Your task to perform on an android device: open app "DoorDash - Food Delivery" (install if not already installed) and go to login screen Image 0: 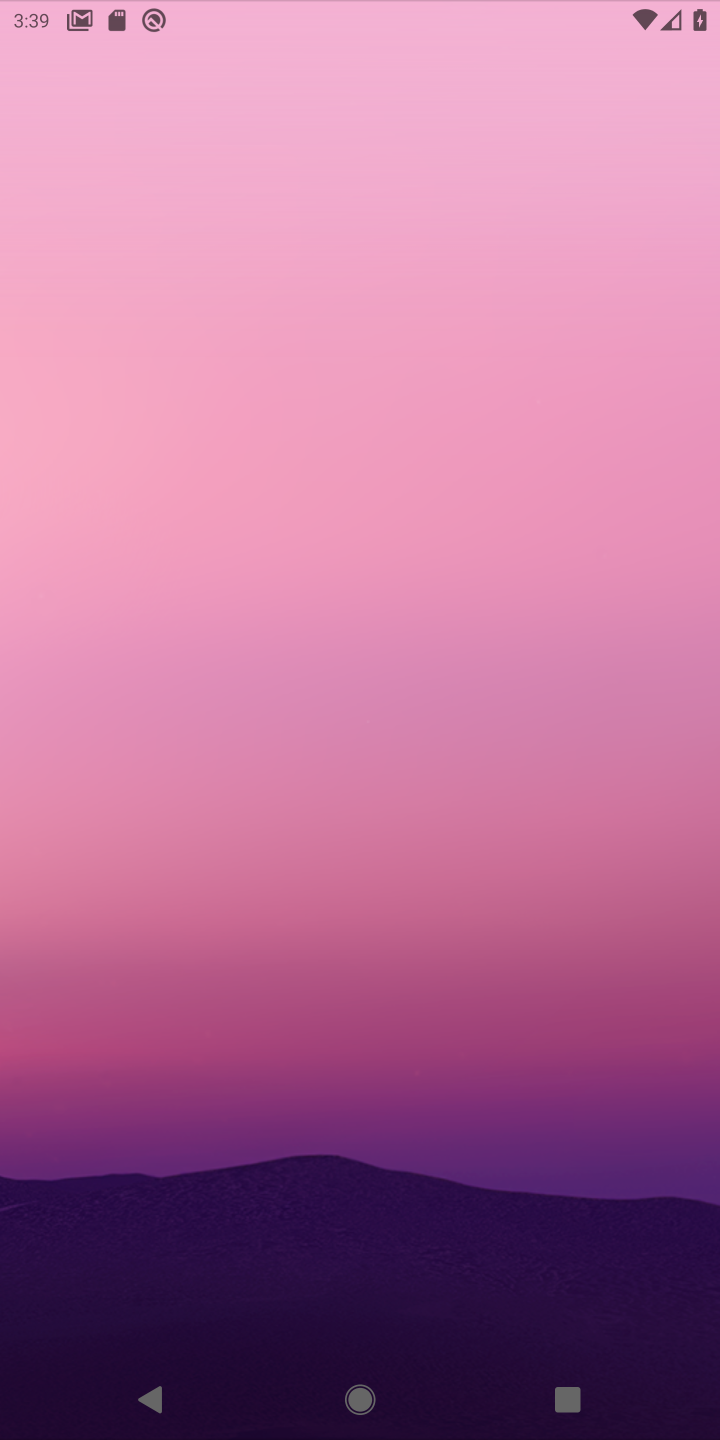
Step 0: press home button
Your task to perform on an android device: open app "DoorDash - Food Delivery" (install if not already installed) and go to login screen Image 1: 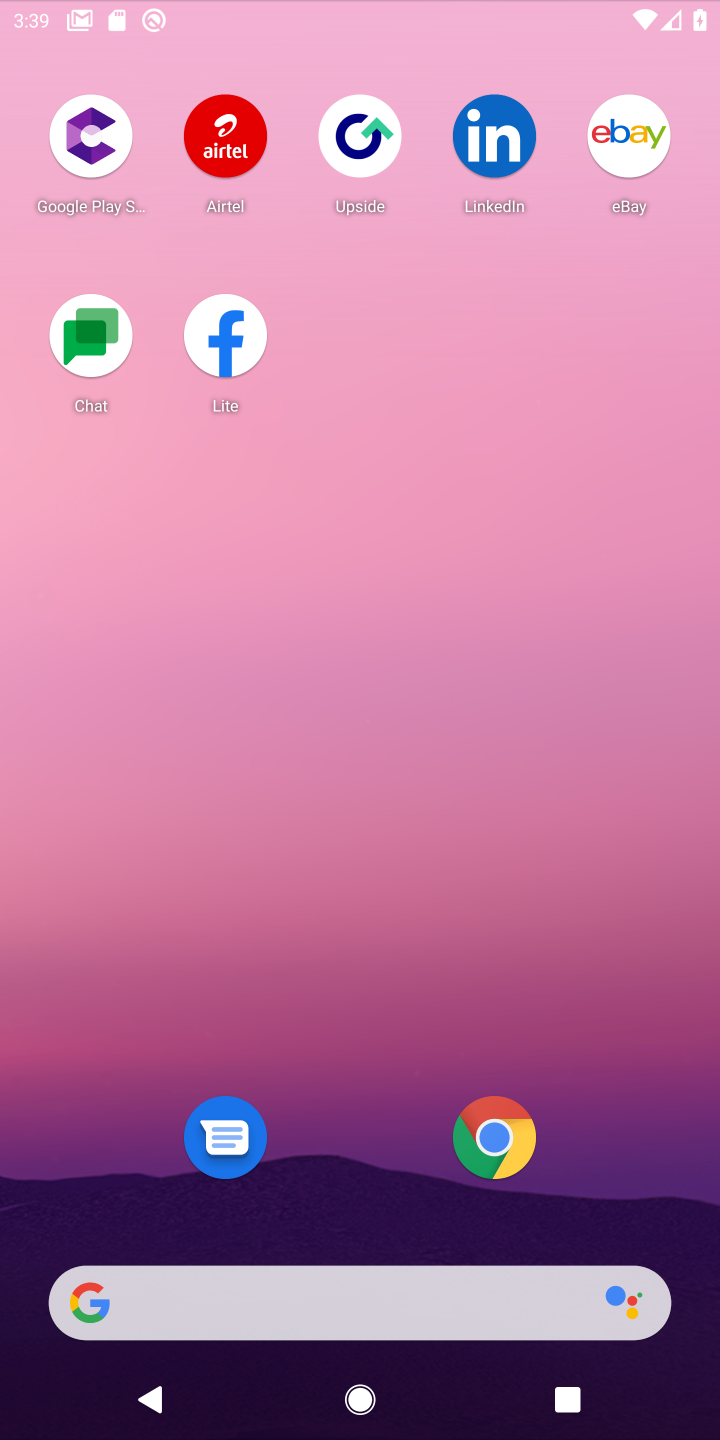
Step 1: drag from (389, 1055) to (425, 373)
Your task to perform on an android device: open app "DoorDash - Food Delivery" (install if not already installed) and go to login screen Image 2: 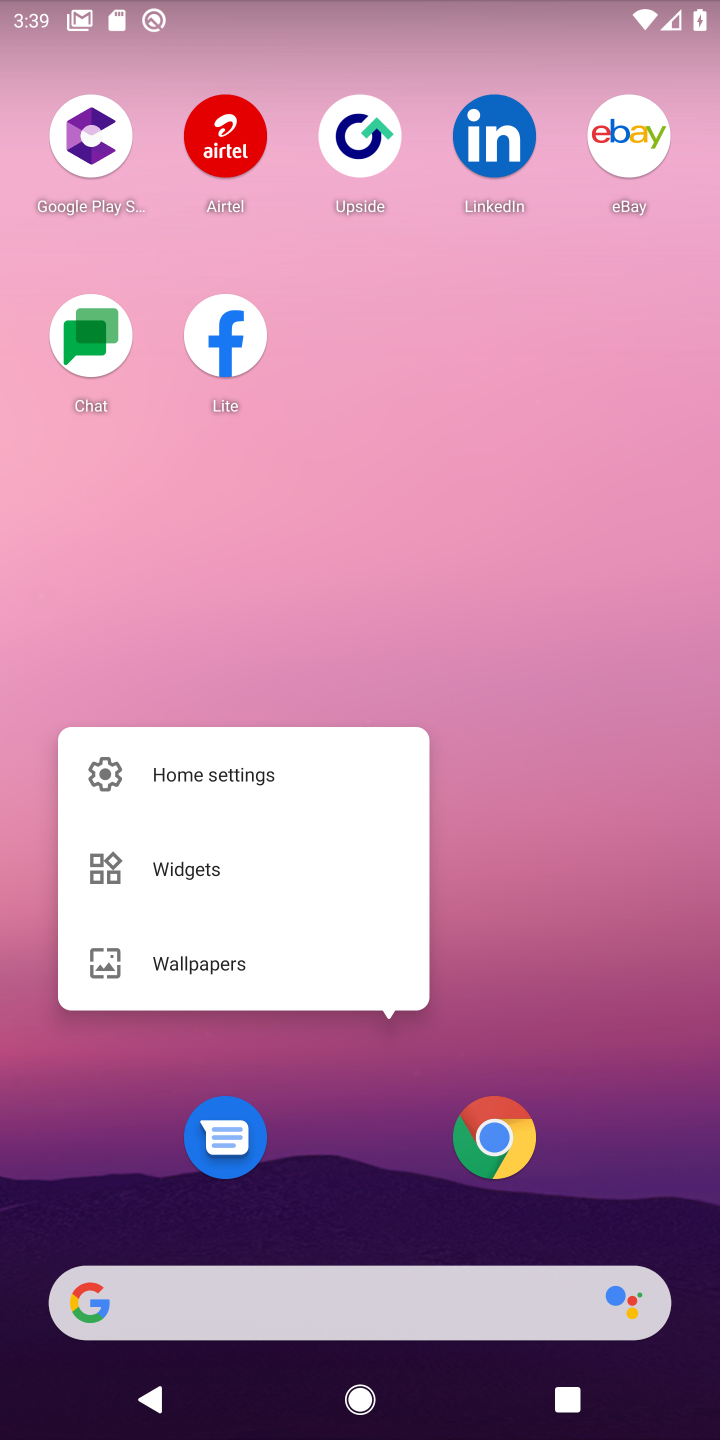
Step 2: drag from (385, 1153) to (385, 26)
Your task to perform on an android device: open app "DoorDash - Food Delivery" (install if not already installed) and go to login screen Image 3: 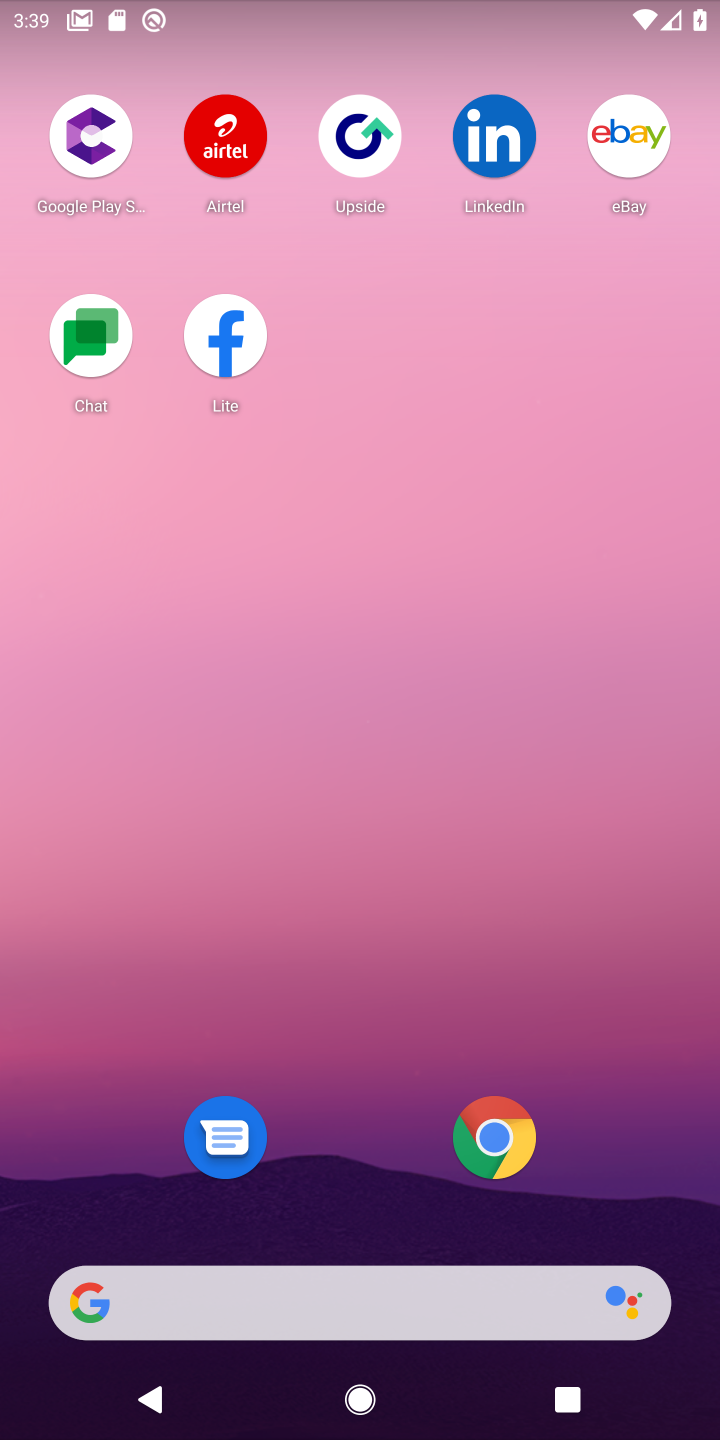
Step 3: click (379, 117)
Your task to perform on an android device: open app "DoorDash - Food Delivery" (install if not already installed) and go to login screen Image 4: 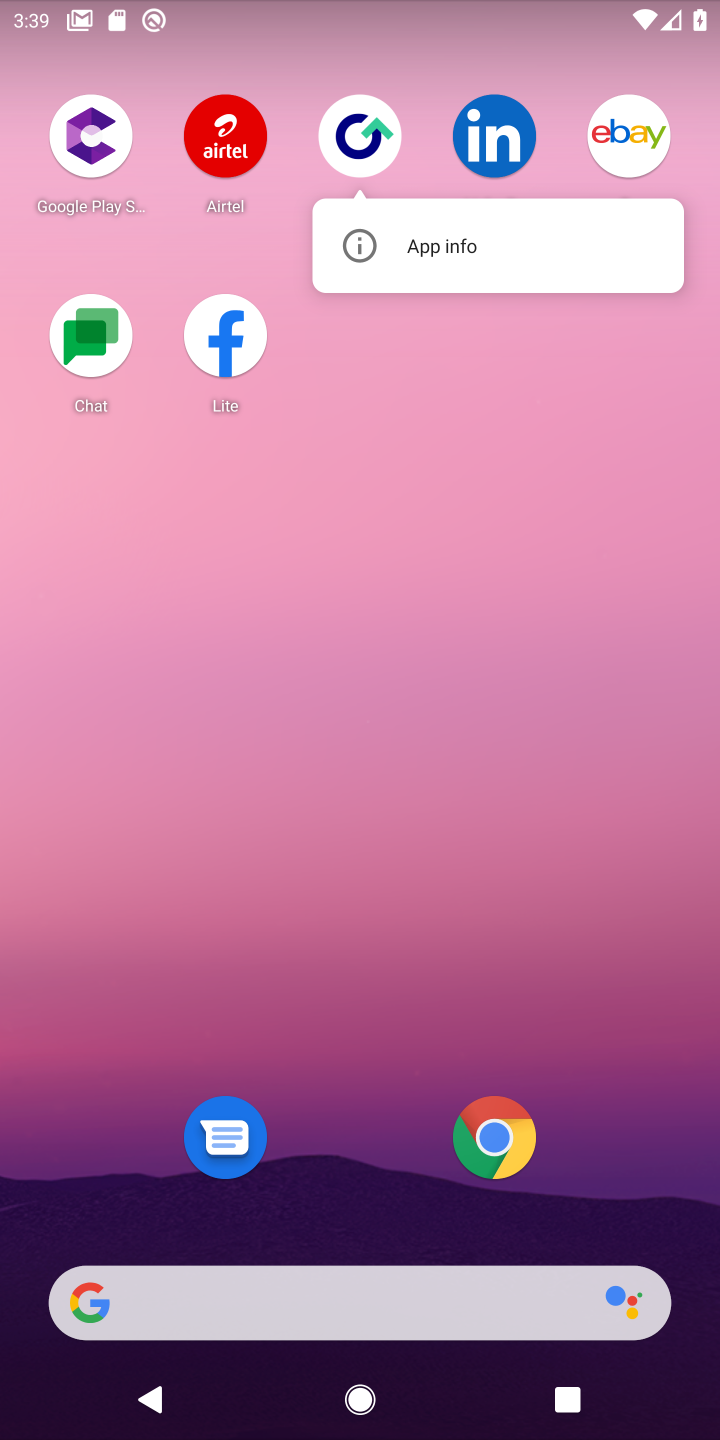
Step 4: click (366, 229)
Your task to perform on an android device: open app "DoorDash - Food Delivery" (install if not already installed) and go to login screen Image 5: 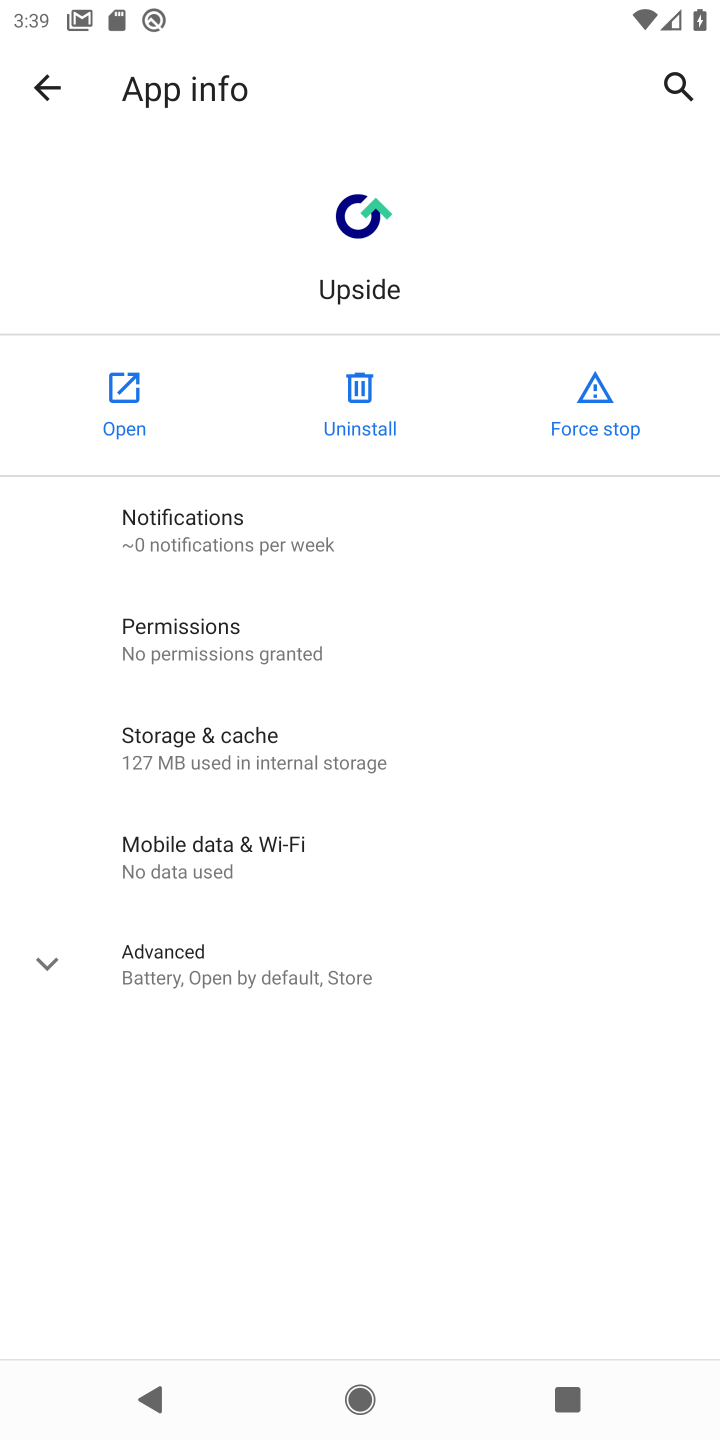
Step 5: press home button
Your task to perform on an android device: open app "DoorDash - Food Delivery" (install if not already installed) and go to login screen Image 6: 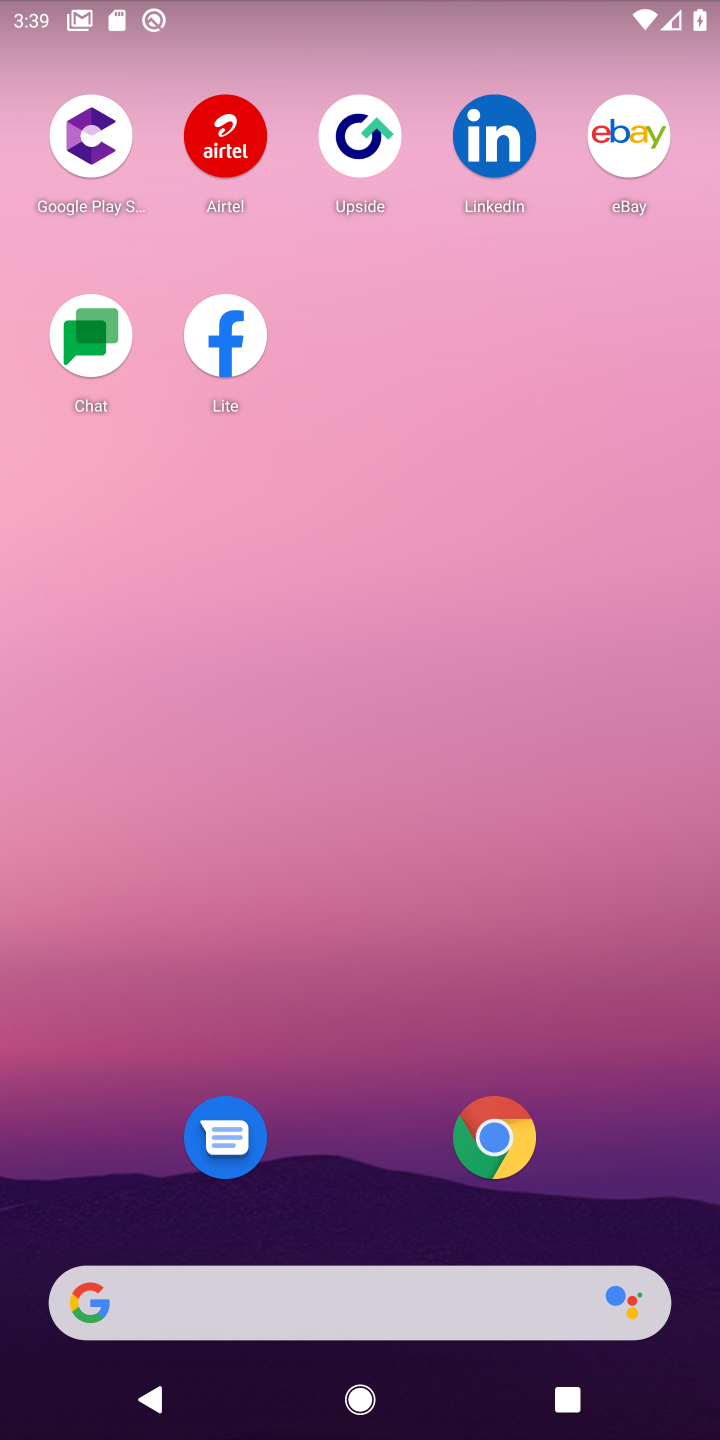
Step 6: drag from (380, 1128) to (380, 353)
Your task to perform on an android device: open app "DoorDash - Food Delivery" (install if not already installed) and go to login screen Image 7: 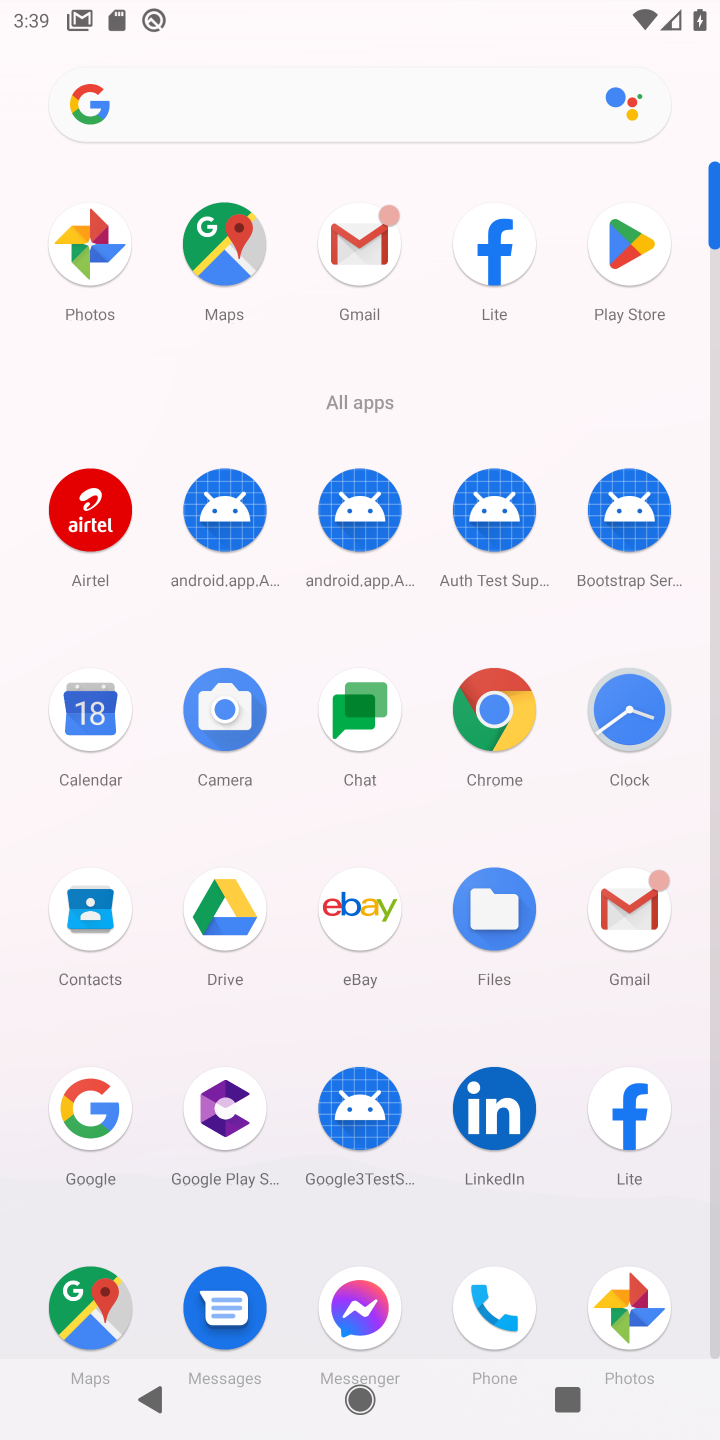
Step 7: click (644, 235)
Your task to perform on an android device: open app "DoorDash - Food Delivery" (install if not already installed) and go to login screen Image 8: 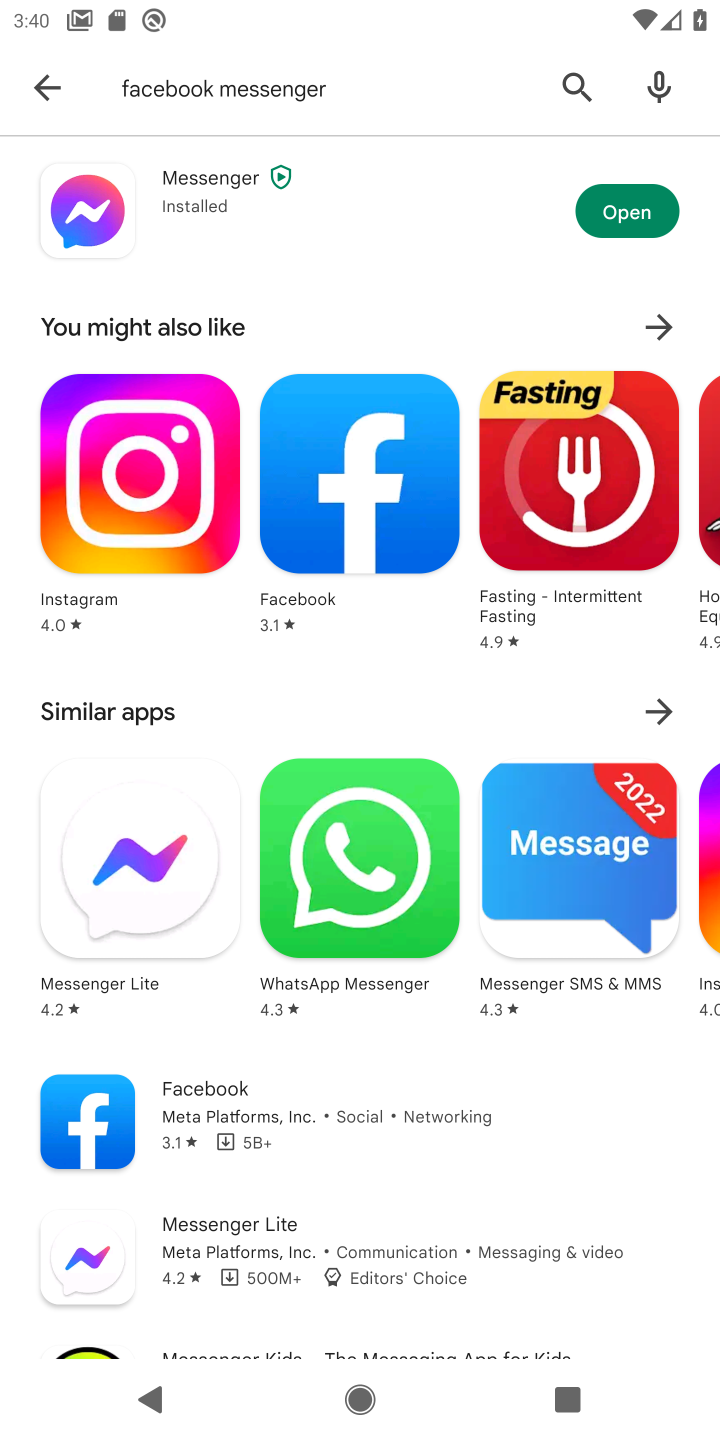
Step 8: click (42, 75)
Your task to perform on an android device: open app "DoorDash - Food Delivery" (install if not already installed) and go to login screen Image 9: 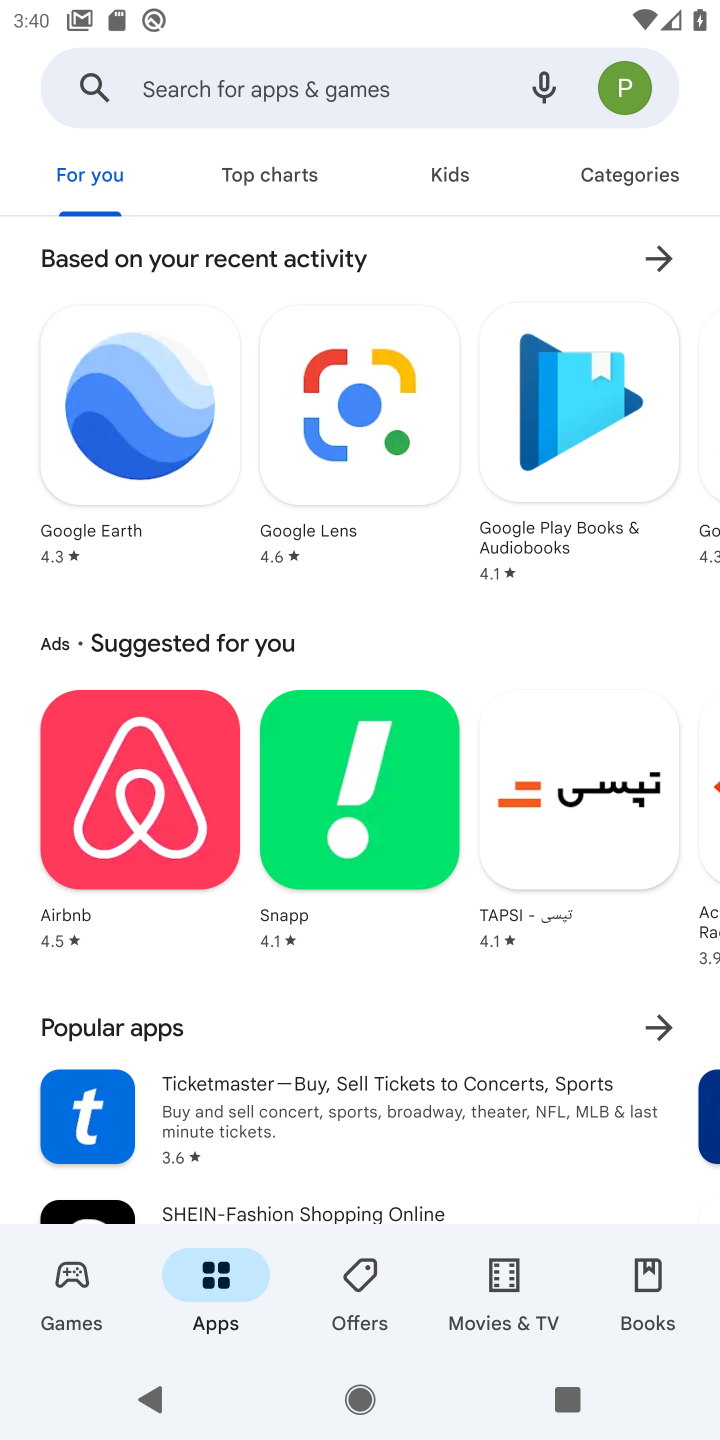
Step 9: click (185, 94)
Your task to perform on an android device: open app "DoorDash - Food Delivery" (install if not already installed) and go to login screen Image 10: 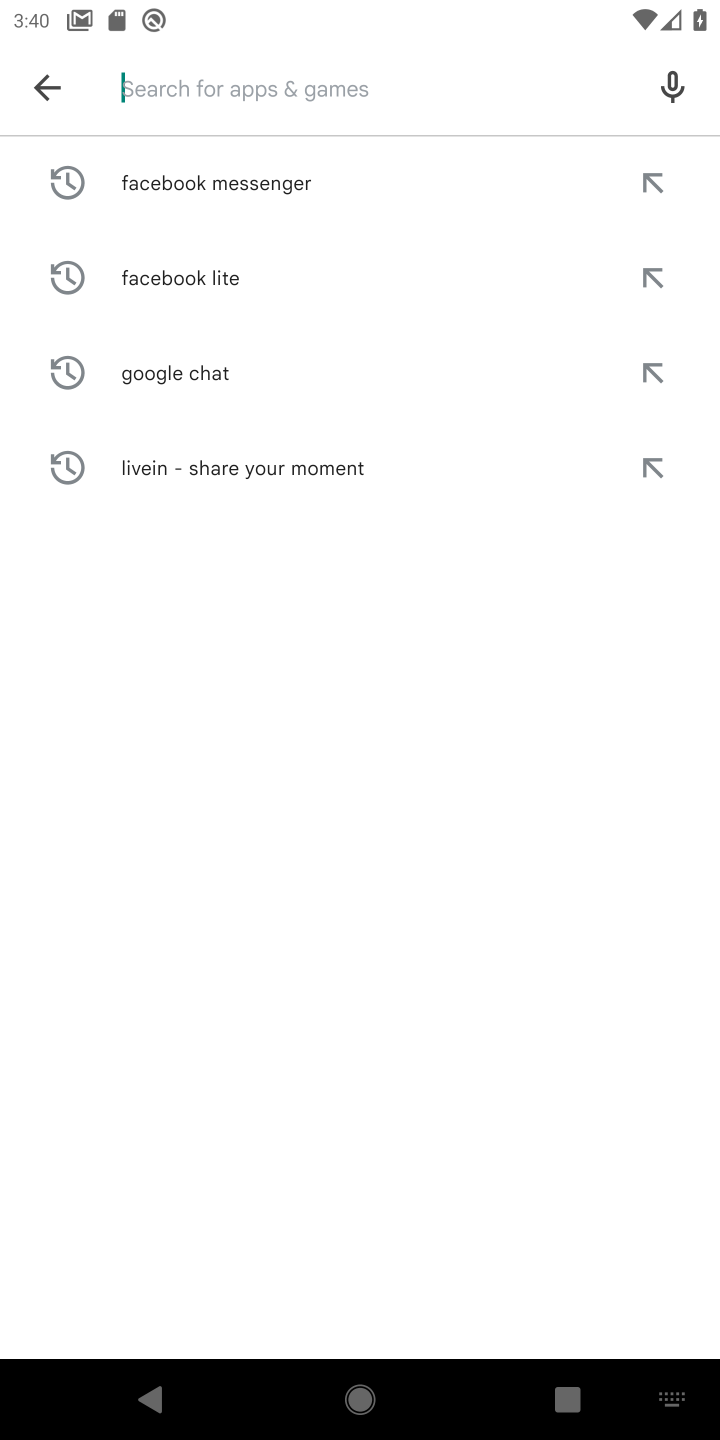
Step 10: type "DoorDash - Food Delivery"
Your task to perform on an android device: open app "DoorDash - Food Delivery" (install if not already installed) and go to login screen Image 11: 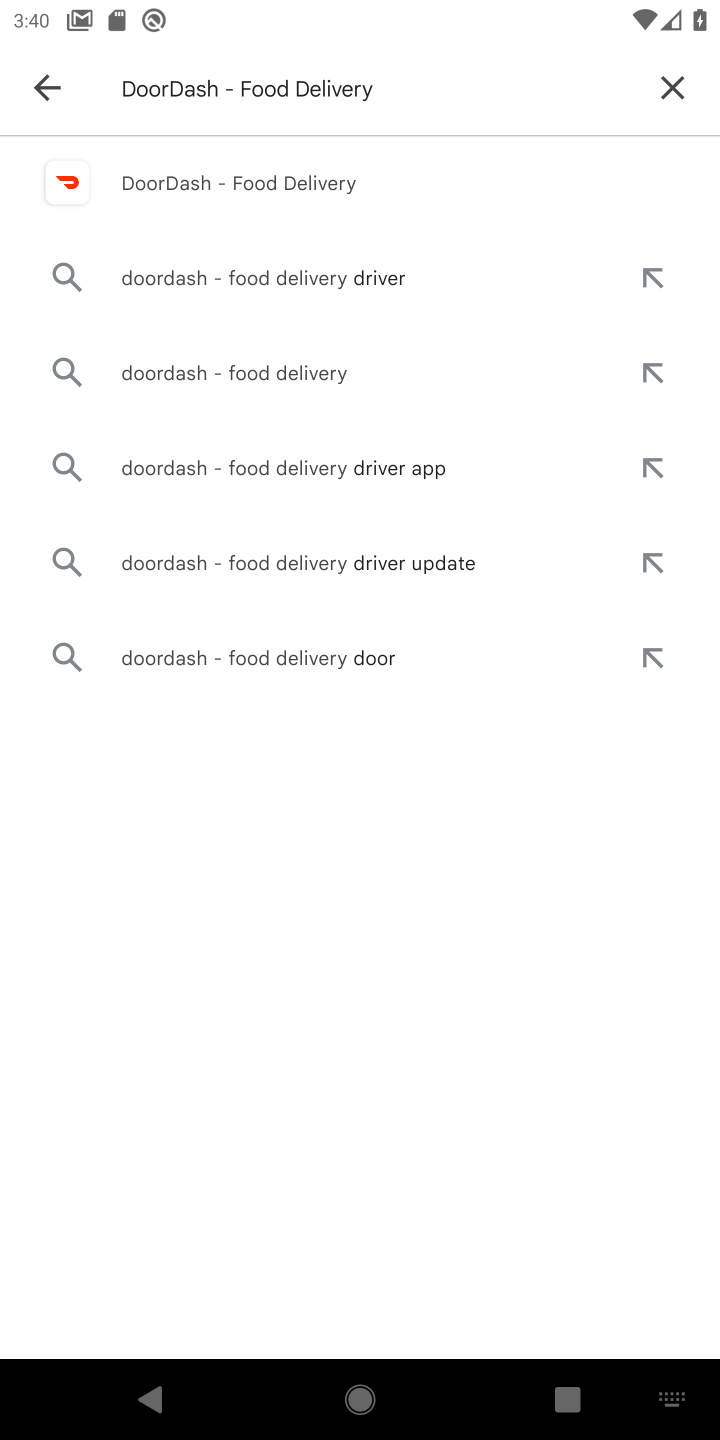
Step 11: click (247, 181)
Your task to perform on an android device: open app "DoorDash - Food Delivery" (install if not already installed) and go to login screen Image 12: 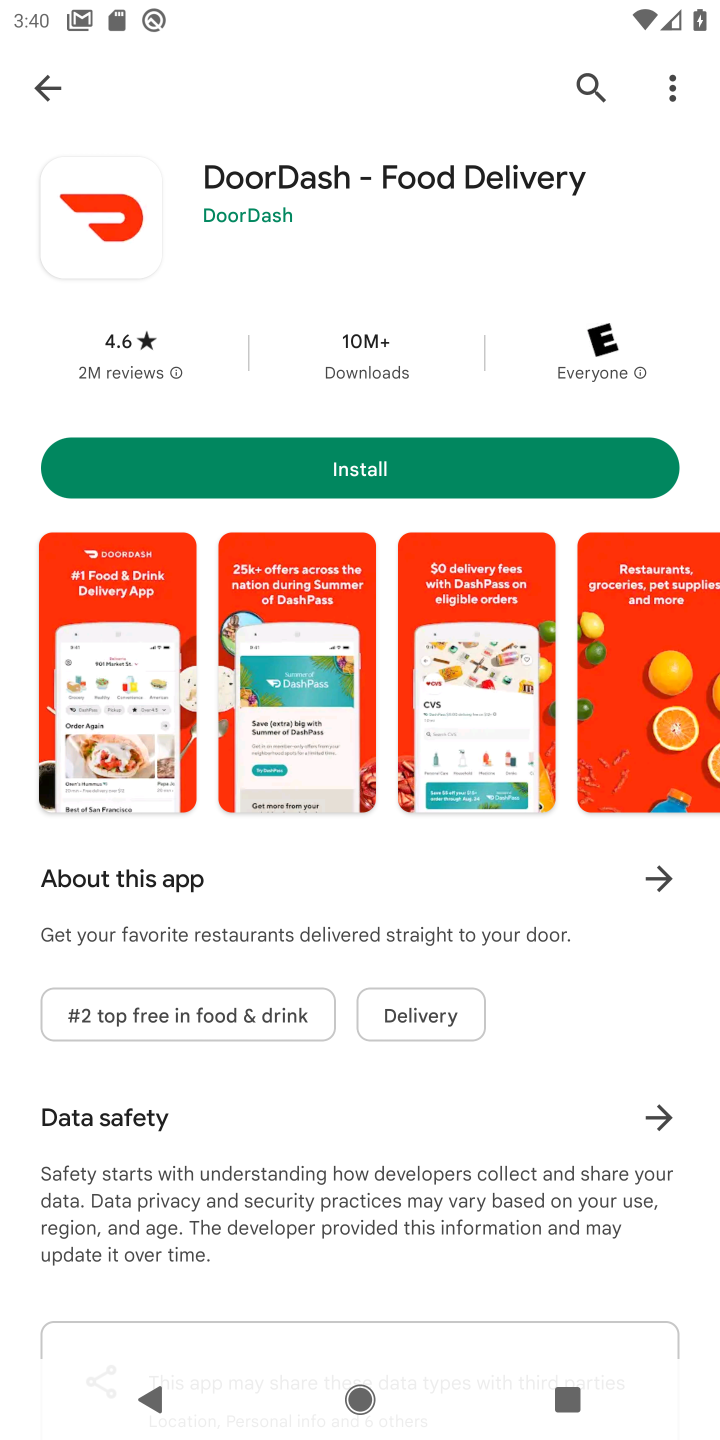
Step 12: click (346, 460)
Your task to perform on an android device: open app "DoorDash - Food Delivery" (install if not already installed) and go to login screen Image 13: 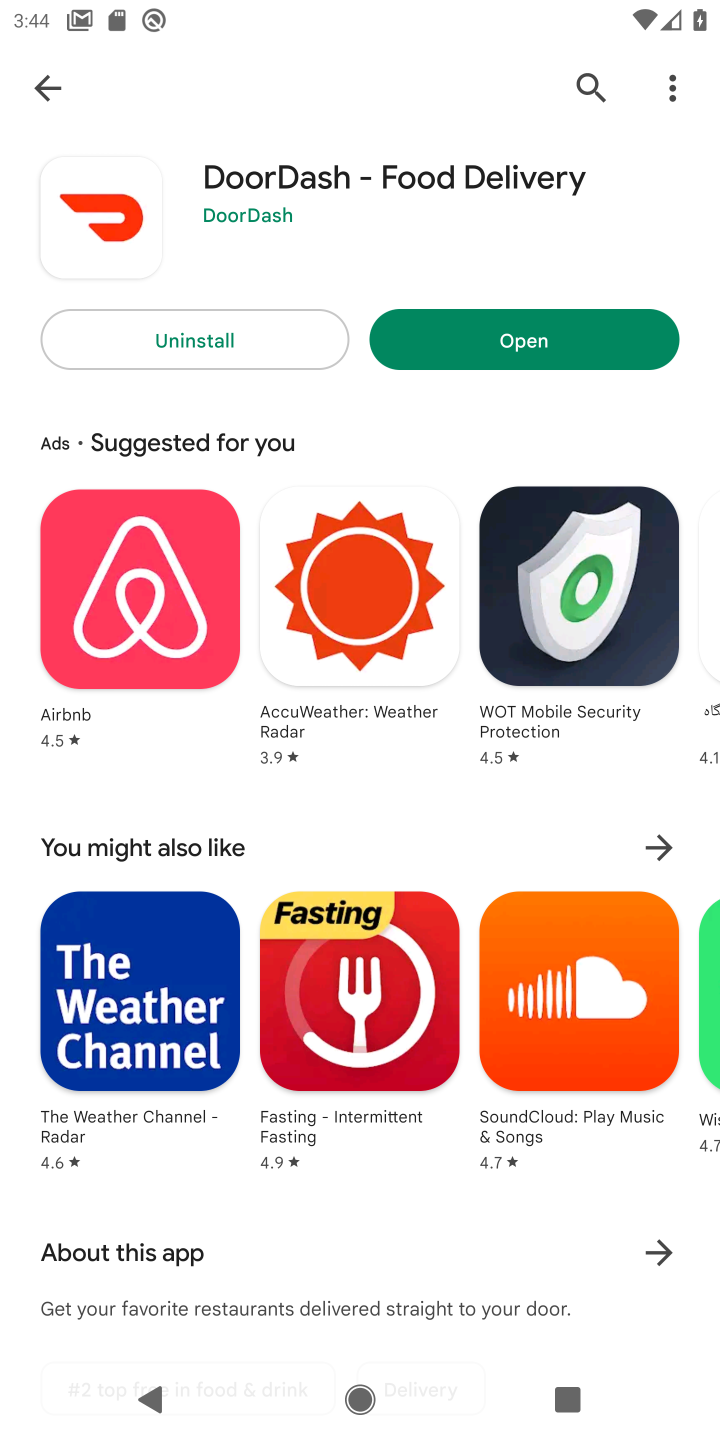
Step 13: click (525, 324)
Your task to perform on an android device: open app "DoorDash - Food Delivery" (install if not already installed) and go to login screen Image 14: 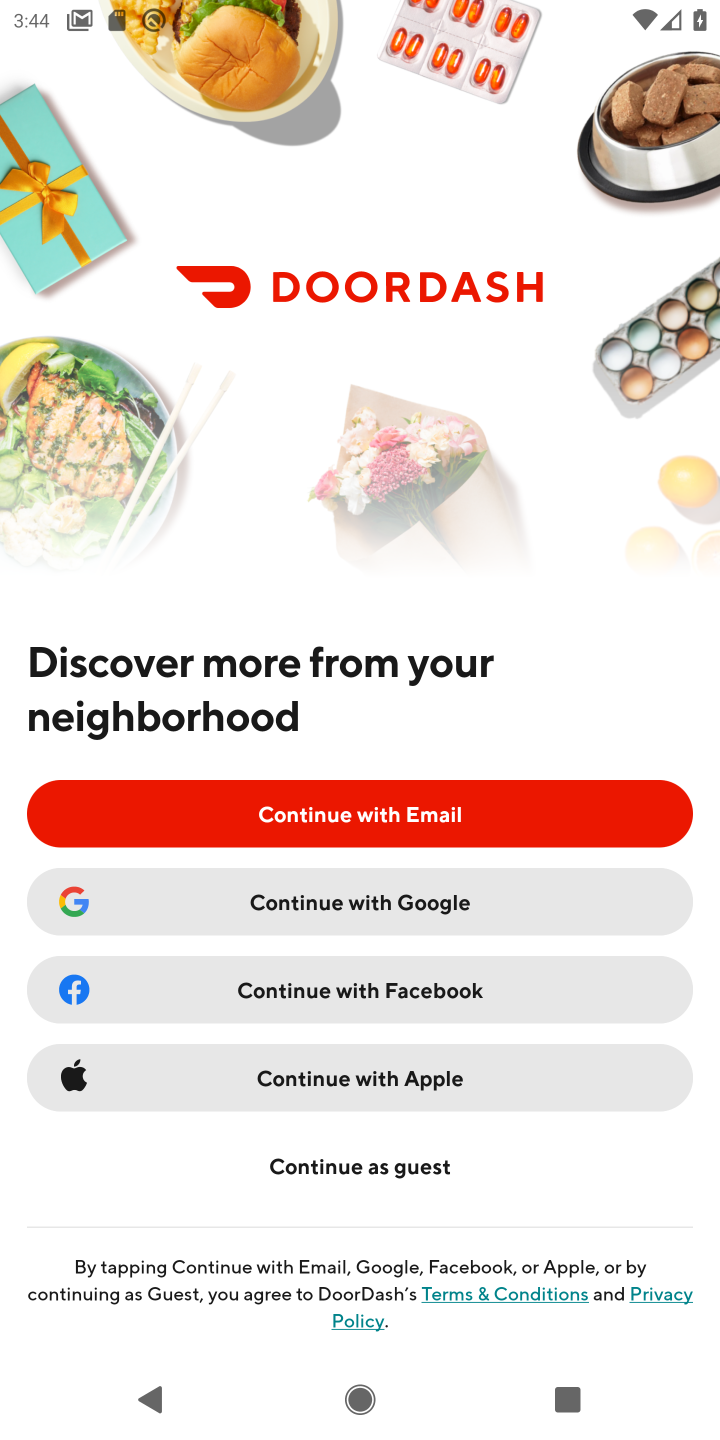
Step 14: task complete